Your task to perform on an android device: Open battery settings Image 0: 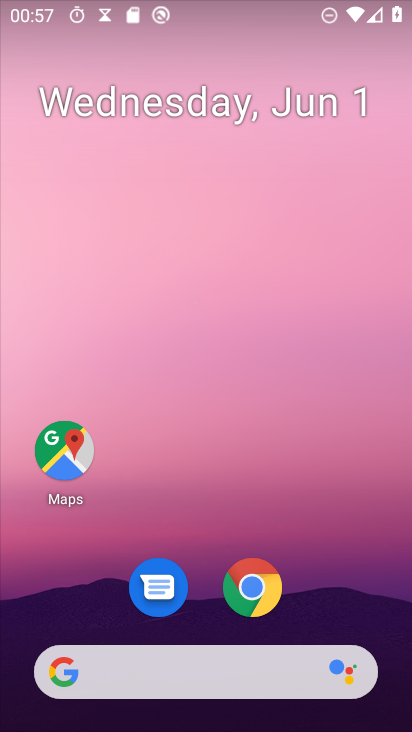
Step 0: drag from (196, 619) to (192, 14)
Your task to perform on an android device: Open battery settings Image 1: 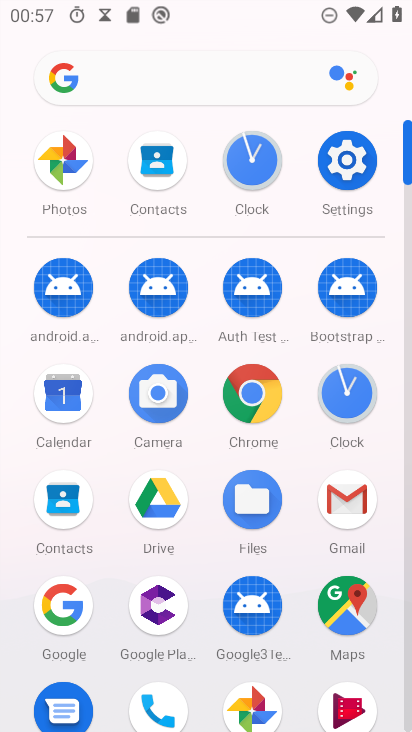
Step 1: click (358, 177)
Your task to perform on an android device: Open battery settings Image 2: 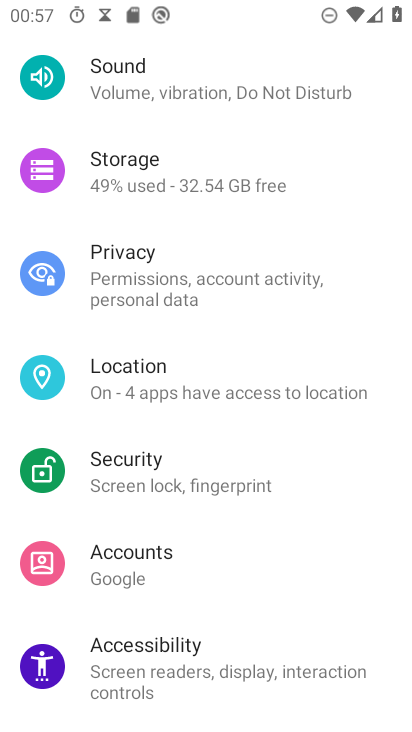
Step 2: drag from (212, 359) to (297, 659)
Your task to perform on an android device: Open battery settings Image 3: 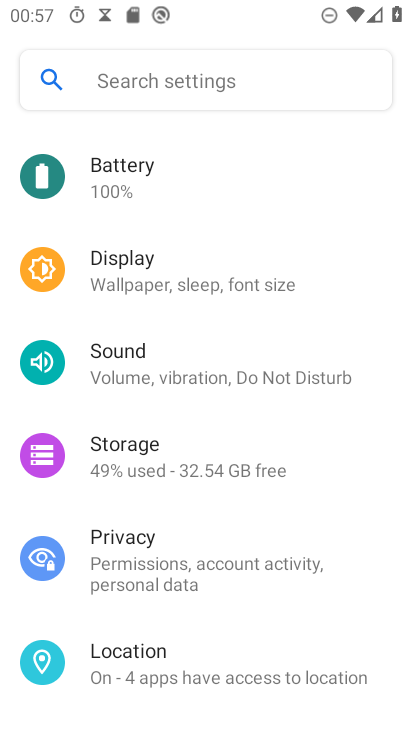
Step 3: click (127, 182)
Your task to perform on an android device: Open battery settings Image 4: 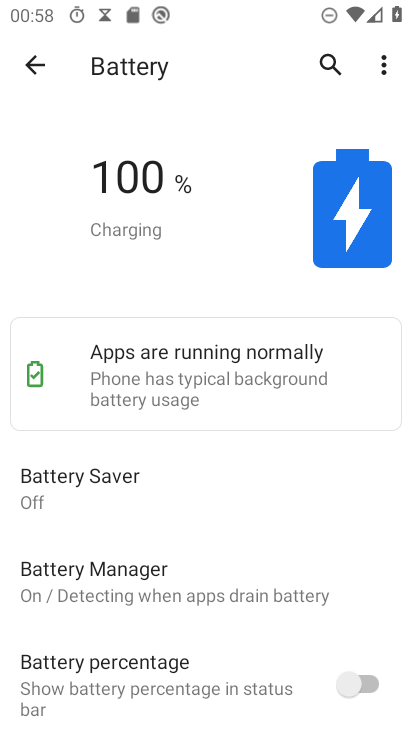
Step 4: task complete